Your task to perform on an android device: Open Chrome and go to settings Image 0: 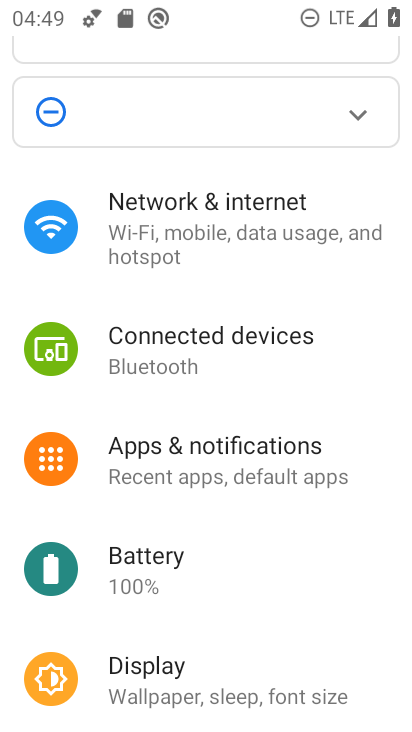
Step 0: press home button
Your task to perform on an android device: Open Chrome and go to settings Image 1: 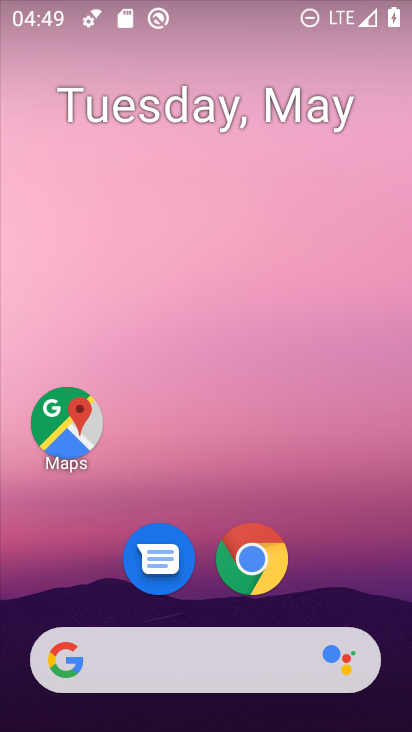
Step 1: click (256, 562)
Your task to perform on an android device: Open Chrome and go to settings Image 2: 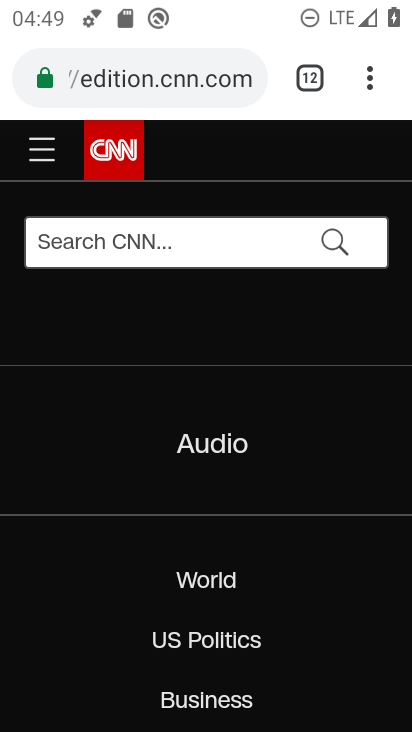
Step 2: click (369, 83)
Your task to perform on an android device: Open Chrome and go to settings Image 3: 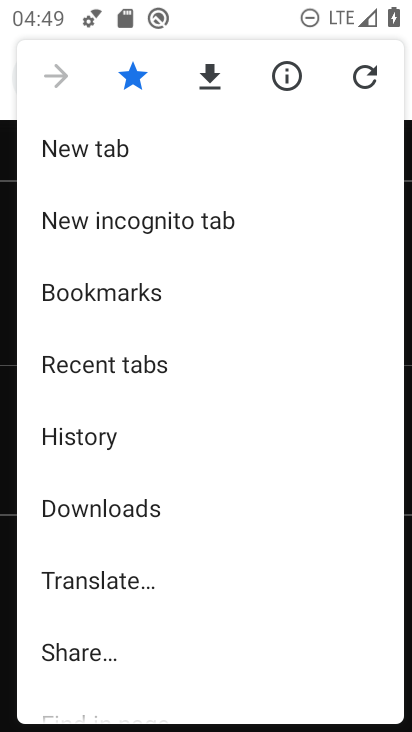
Step 3: drag from (120, 678) to (130, 315)
Your task to perform on an android device: Open Chrome and go to settings Image 4: 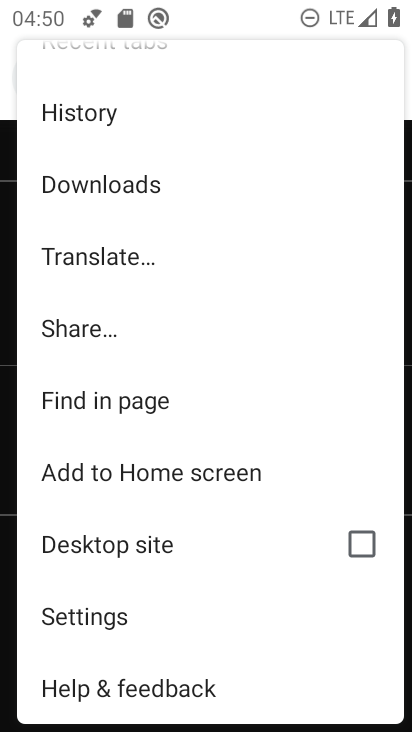
Step 4: click (97, 620)
Your task to perform on an android device: Open Chrome and go to settings Image 5: 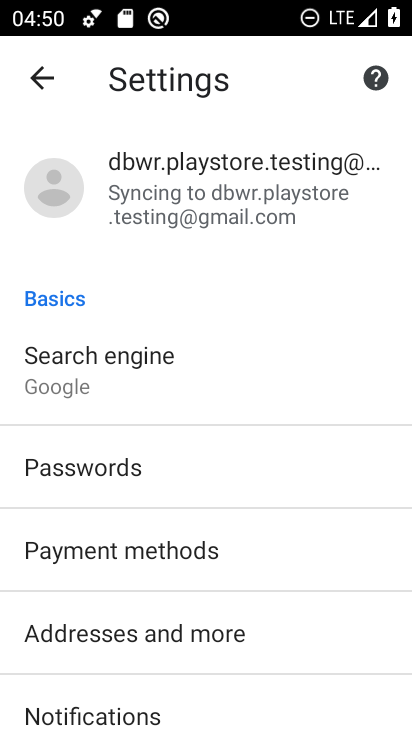
Step 5: task complete